Your task to perform on an android device: Open the contacts app Image 0: 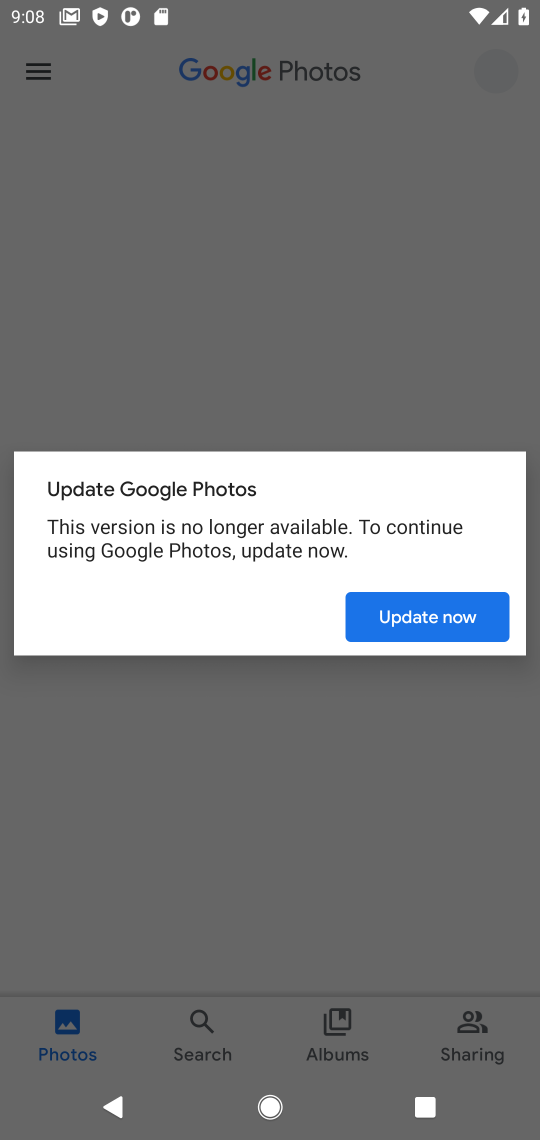
Step 0: press home button
Your task to perform on an android device: Open the contacts app Image 1: 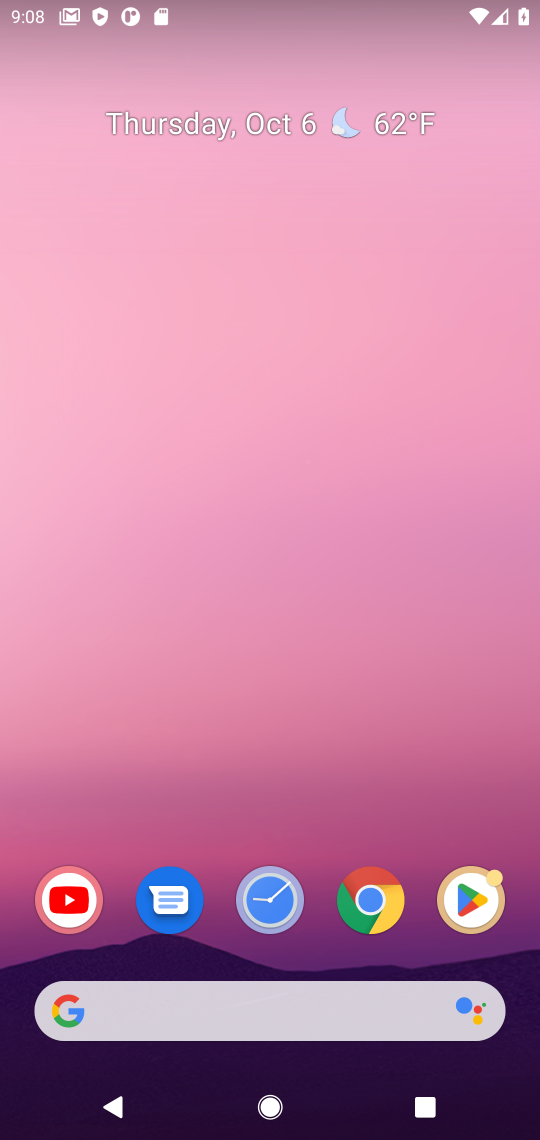
Step 1: drag from (418, 716) to (427, 96)
Your task to perform on an android device: Open the contacts app Image 2: 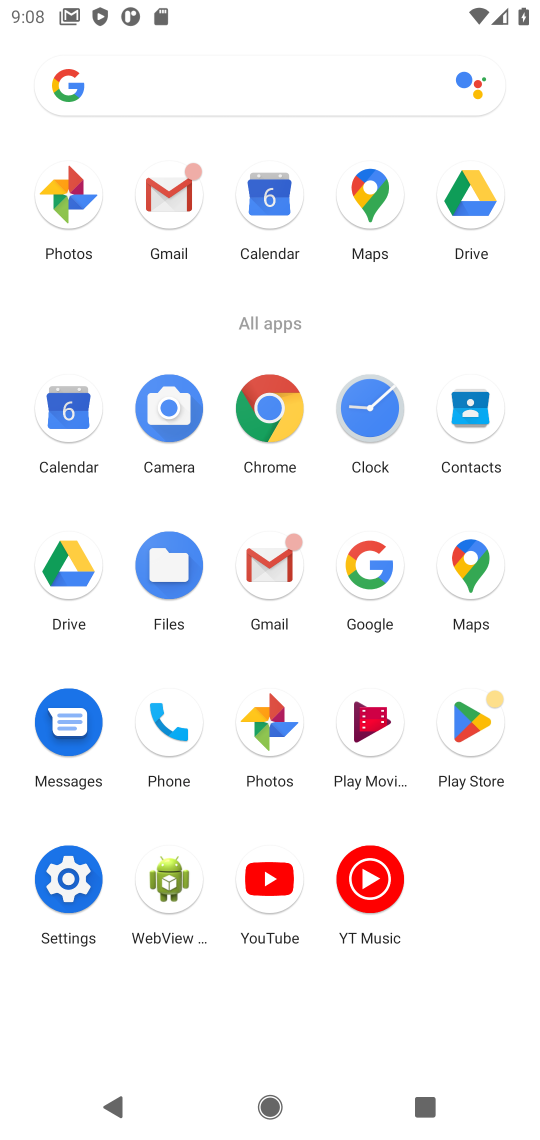
Step 2: click (476, 415)
Your task to perform on an android device: Open the contacts app Image 3: 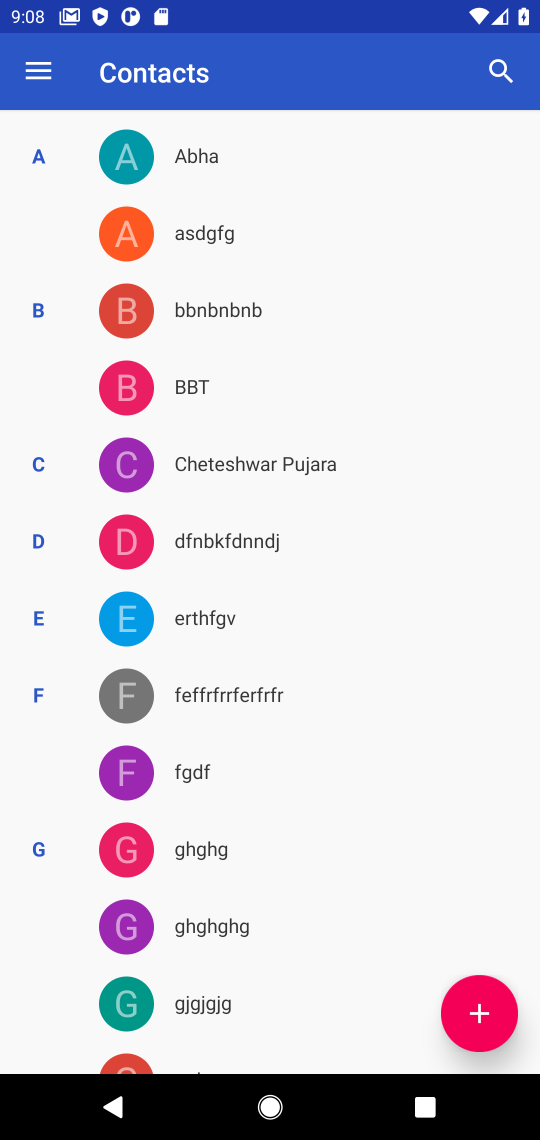
Step 3: task complete